Your task to perform on an android device: open app "Microsoft Outlook" Image 0: 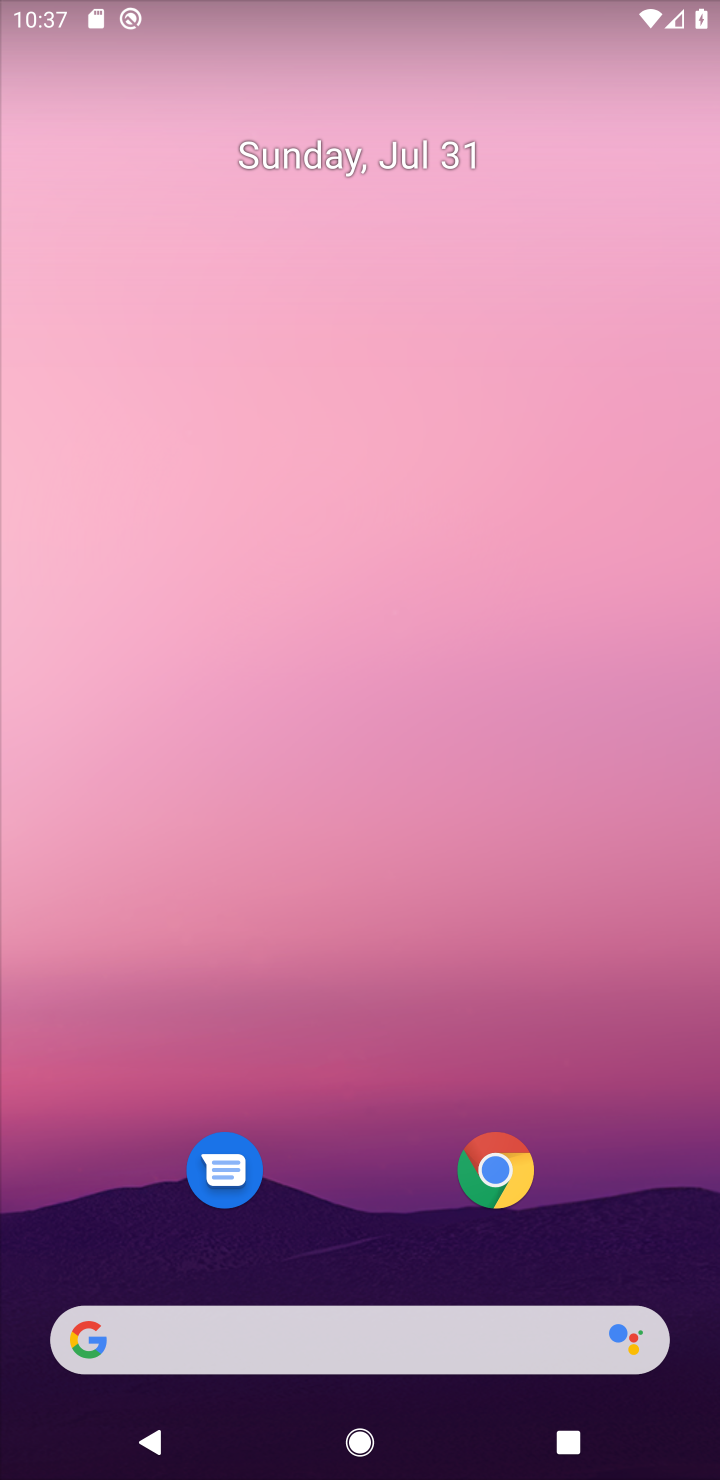
Step 0: drag from (652, 1192) to (675, 178)
Your task to perform on an android device: open app "Microsoft Outlook" Image 1: 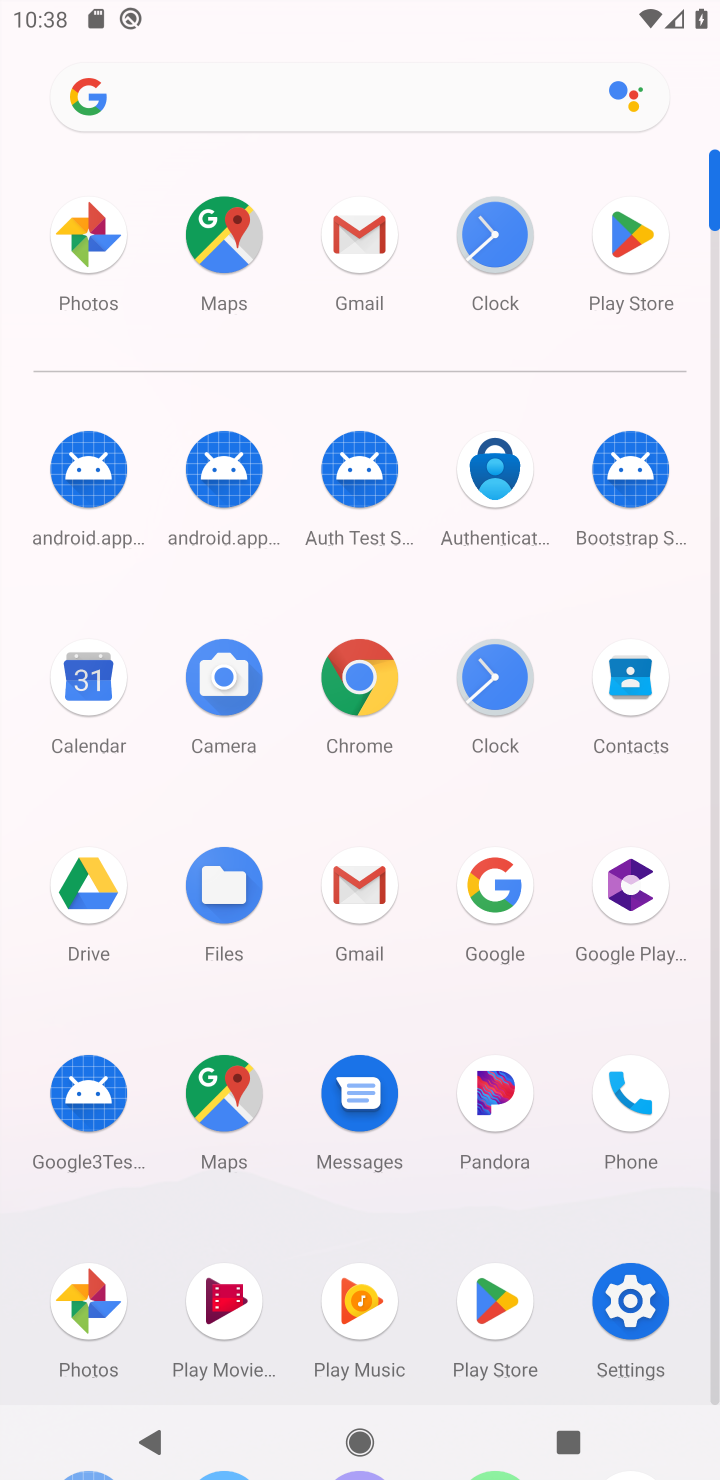
Step 1: click (639, 244)
Your task to perform on an android device: open app "Microsoft Outlook" Image 2: 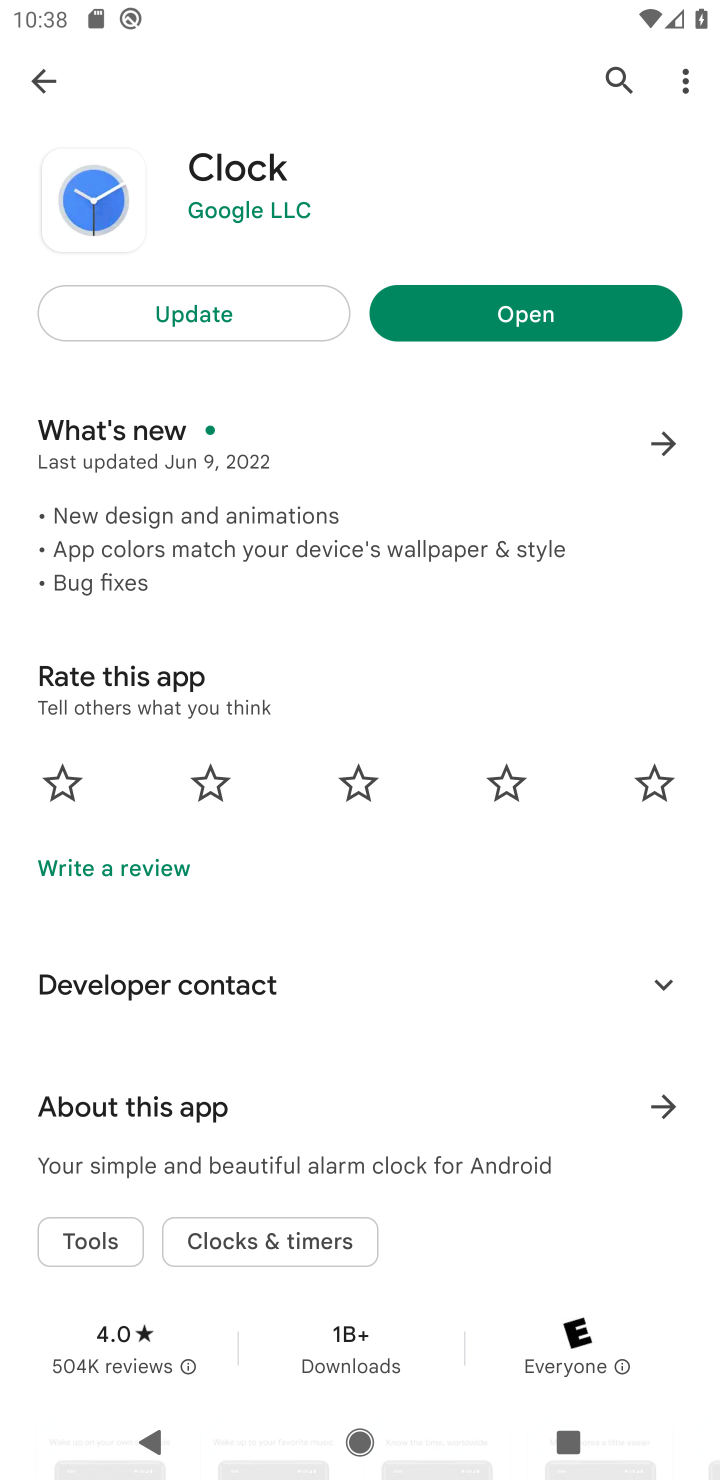
Step 2: press back button
Your task to perform on an android device: open app "Microsoft Outlook" Image 3: 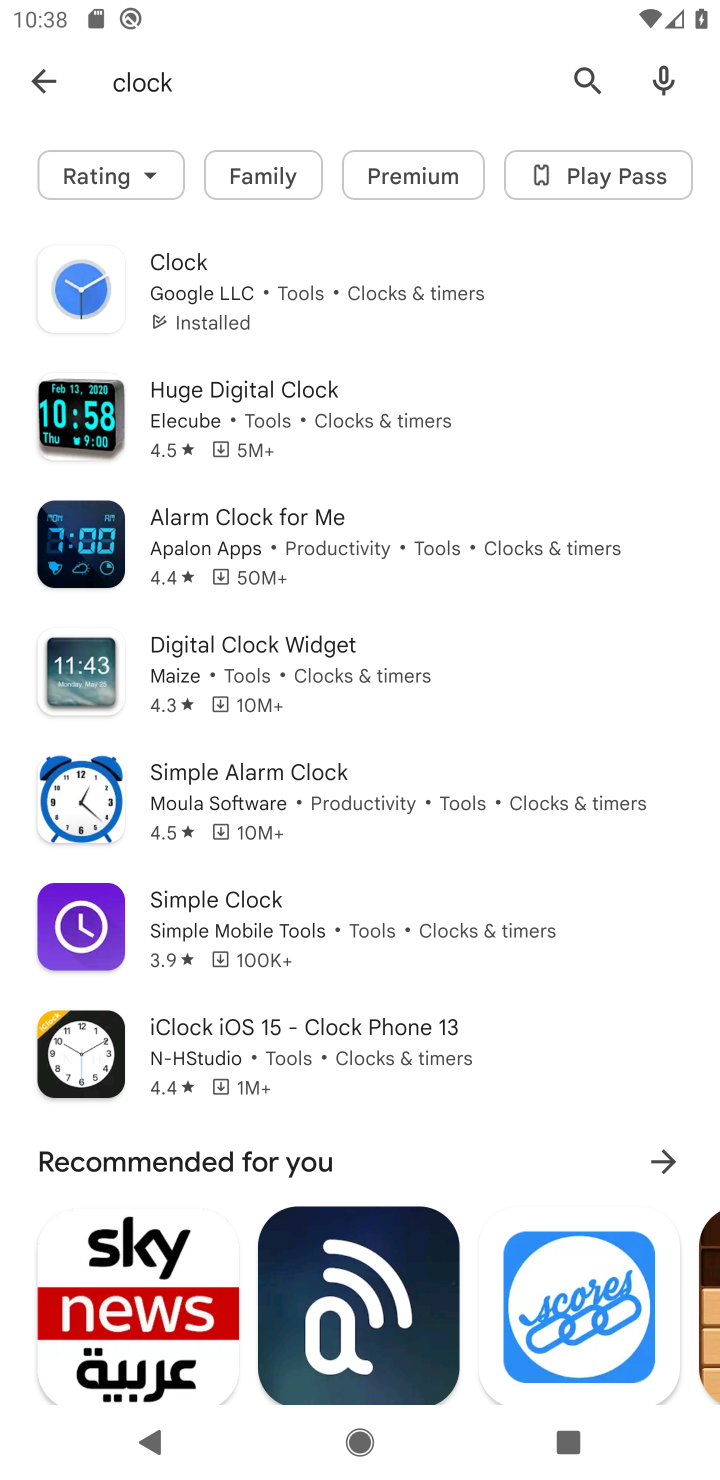
Step 3: press home button
Your task to perform on an android device: open app "Microsoft Outlook" Image 4: 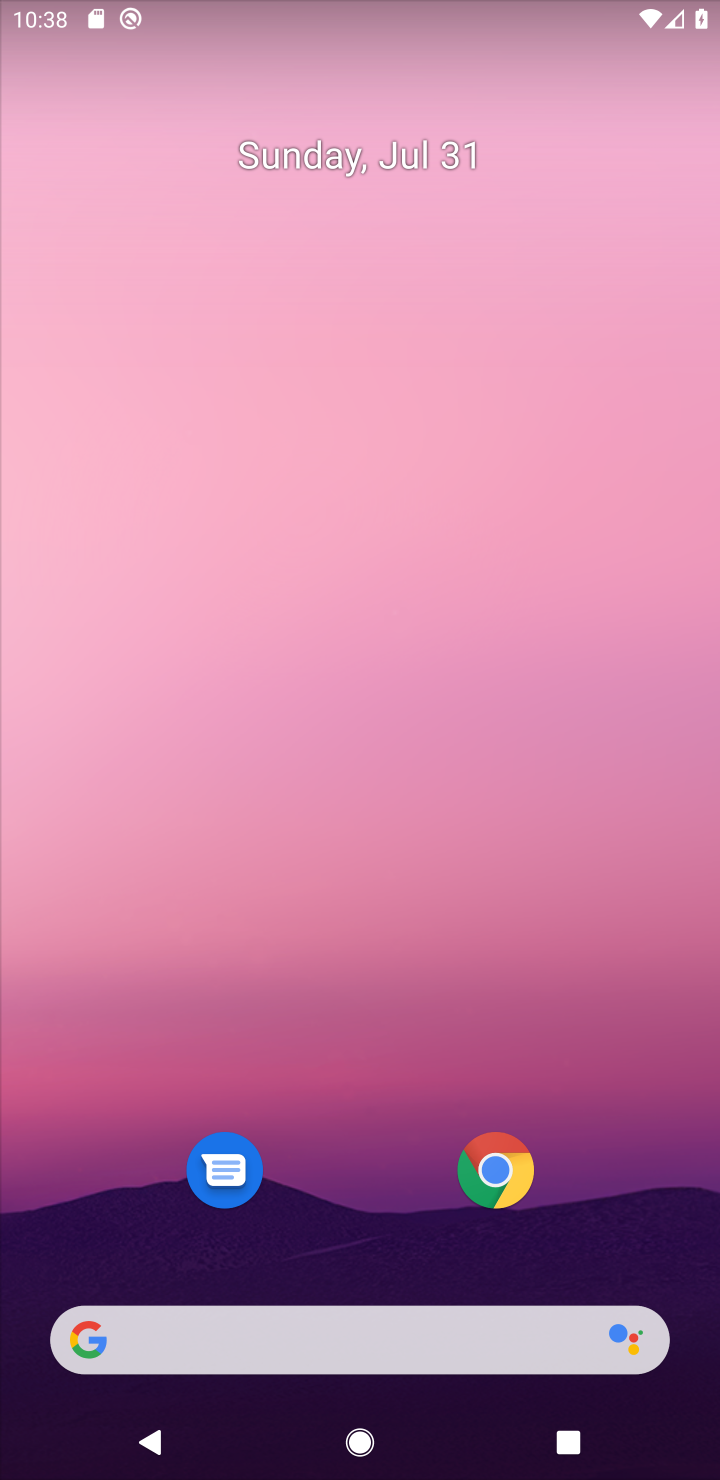
Step 4: drag from (630, 1197) to (298, 5)
Your task to perform on an android device: open app "Microsoft Outlook" Image 5: 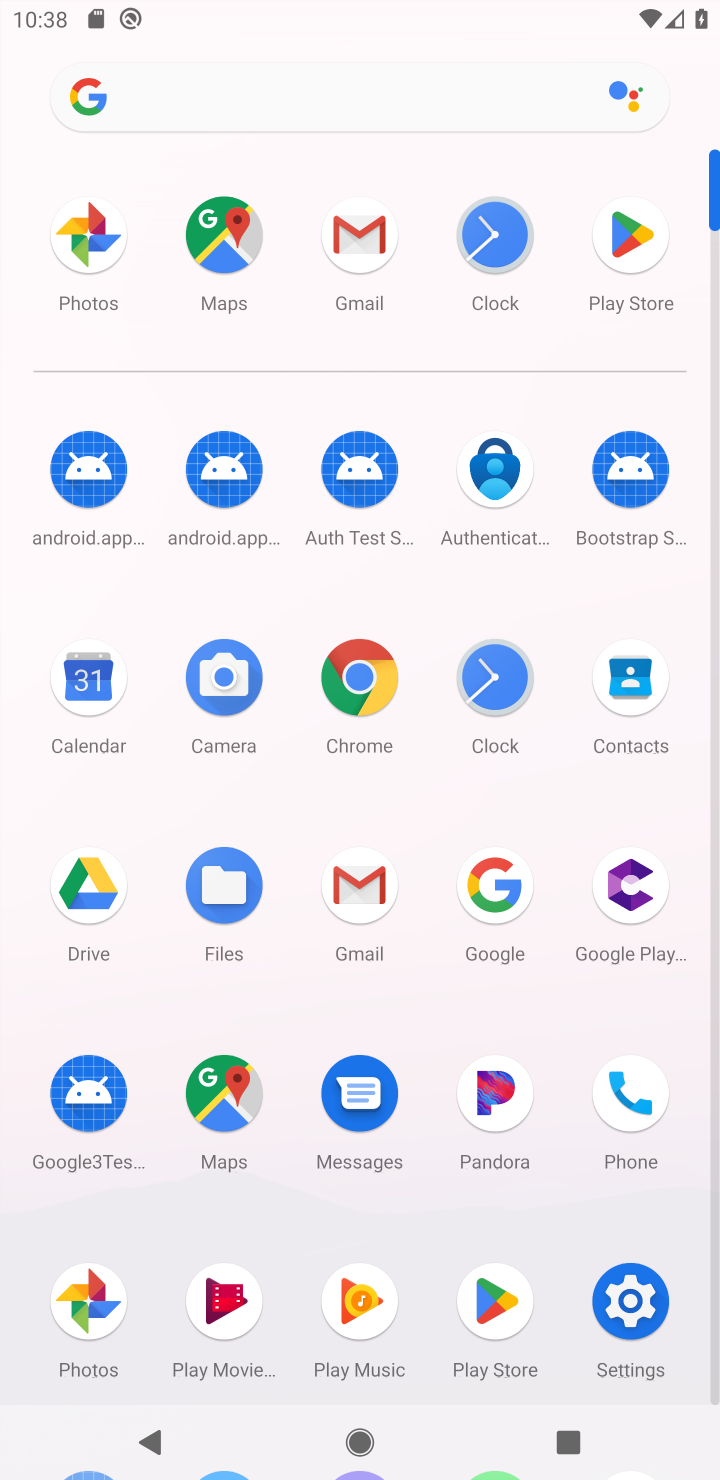
Step 5: click (631, 254)
Your task to perform on an android device: open app "Microsoft Outlook" Image 6: 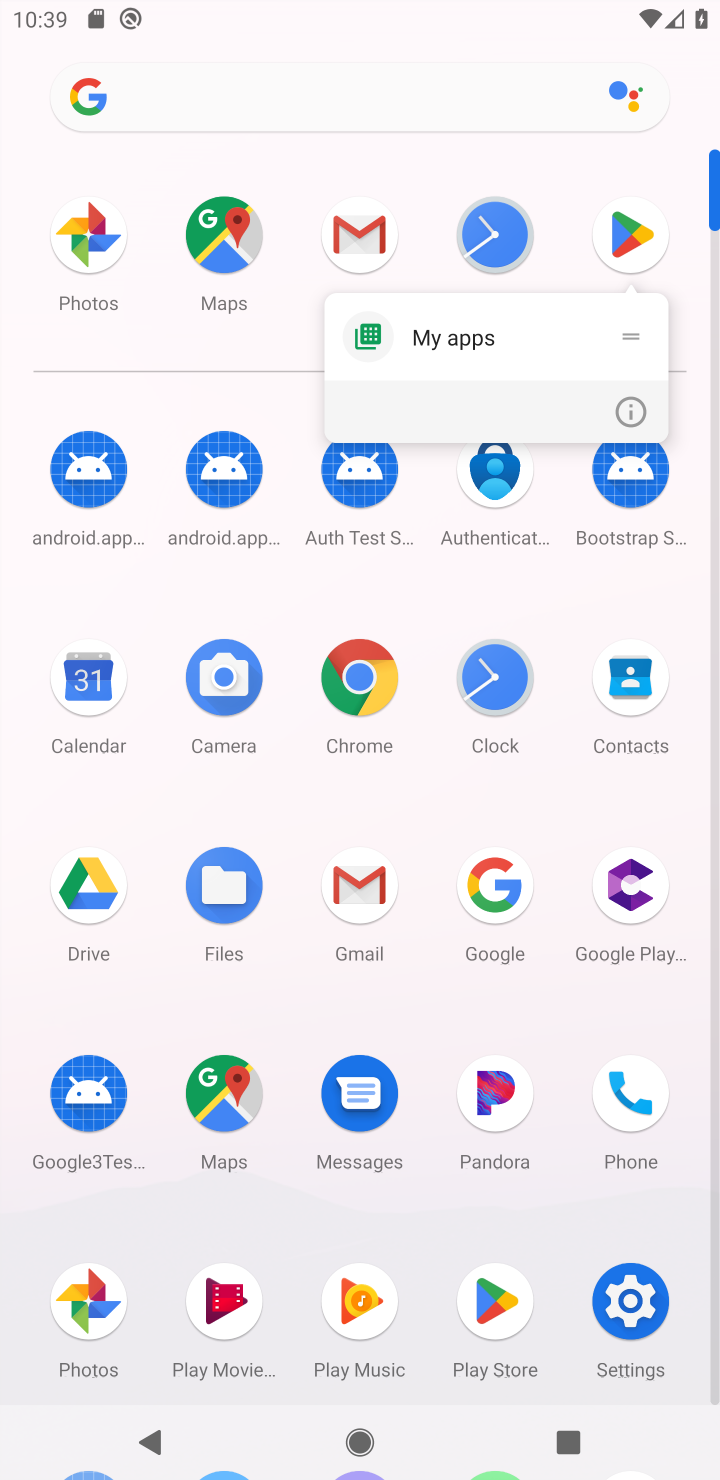
Step 6: click (612, 240)
Your task to perform on an android device: open app "Microsoft Outlook" Image 7: 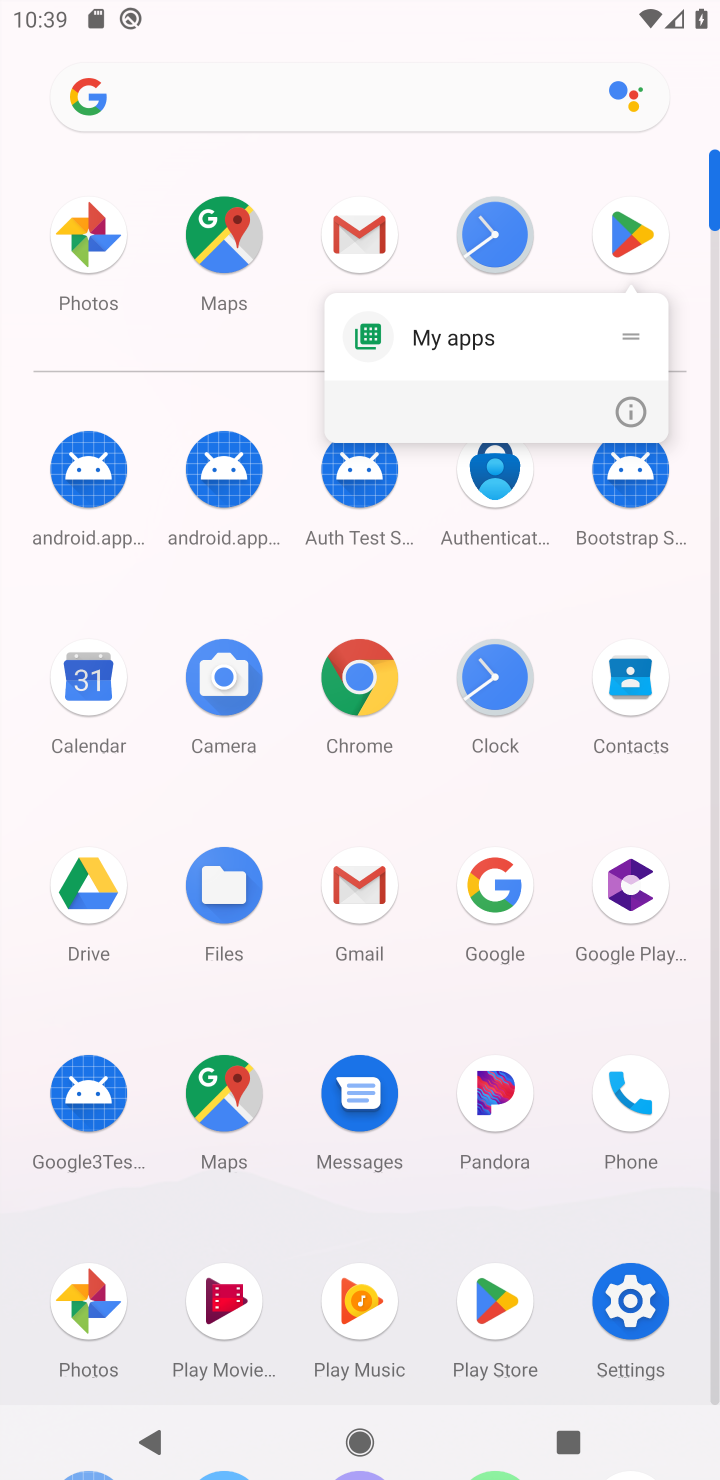
Step 7: click (644, 219)
Your task to perform on an android device: open app "Microsoft Outlook" Image 8: 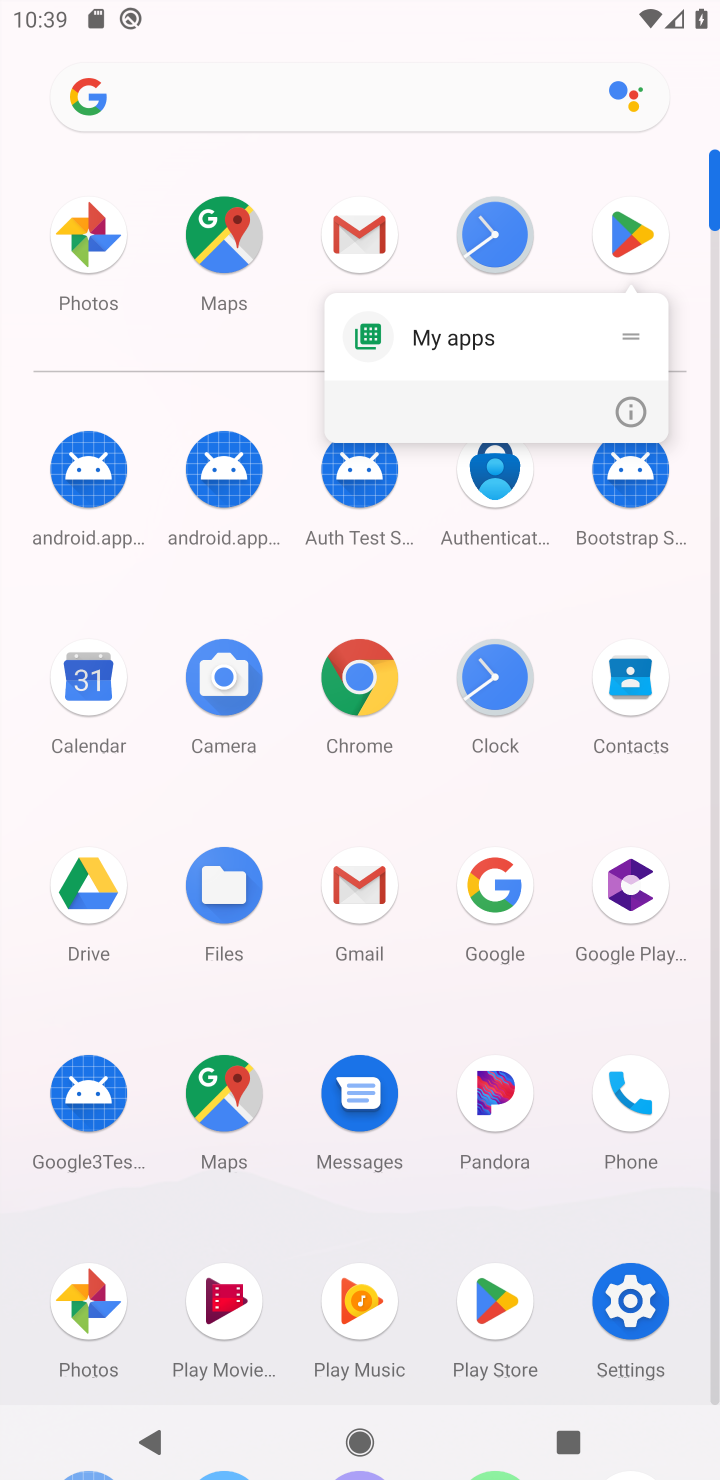
Step 8: click (644, 219)
Your task to perform on an android device: open app "Microsoft Outlook" Image 9: 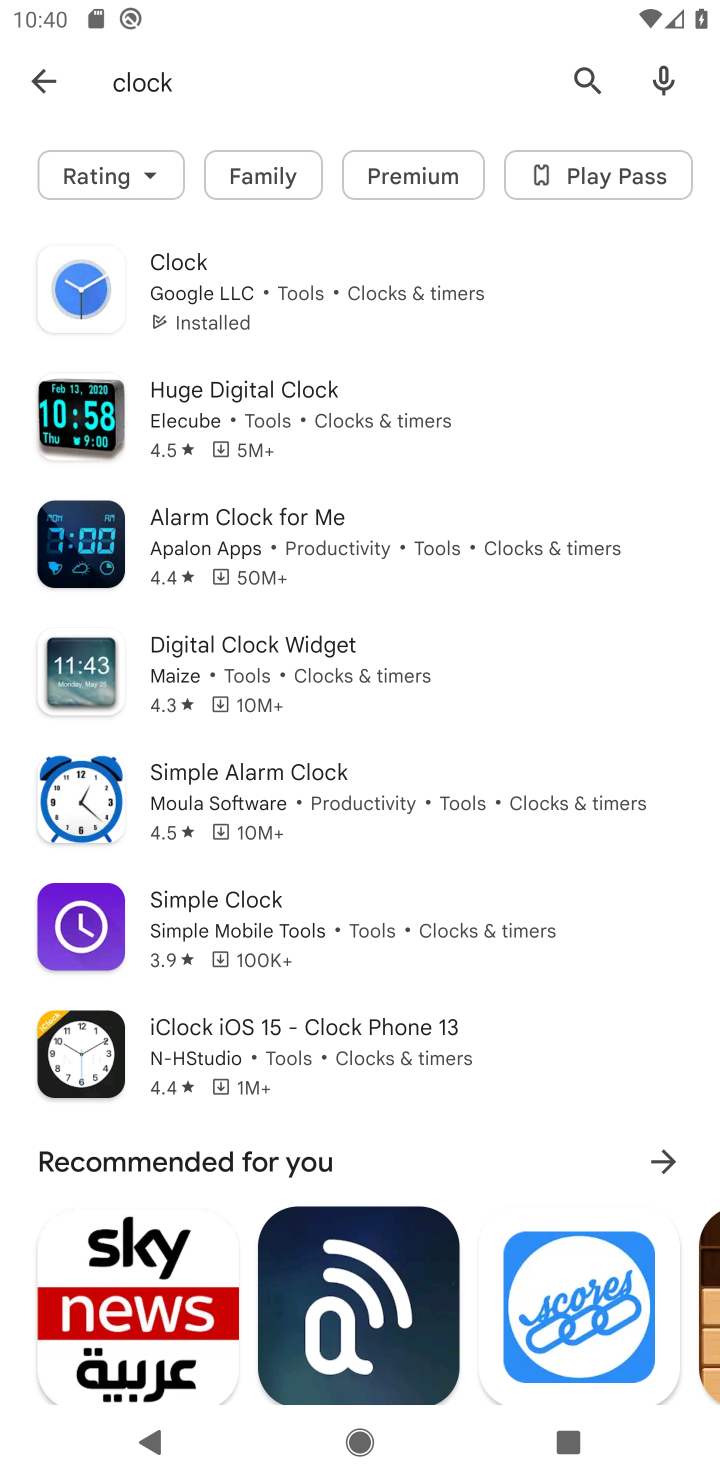
Step 9: press back button
Your task to perform on an android device: open app "Microsoft Outlook" Image 10: 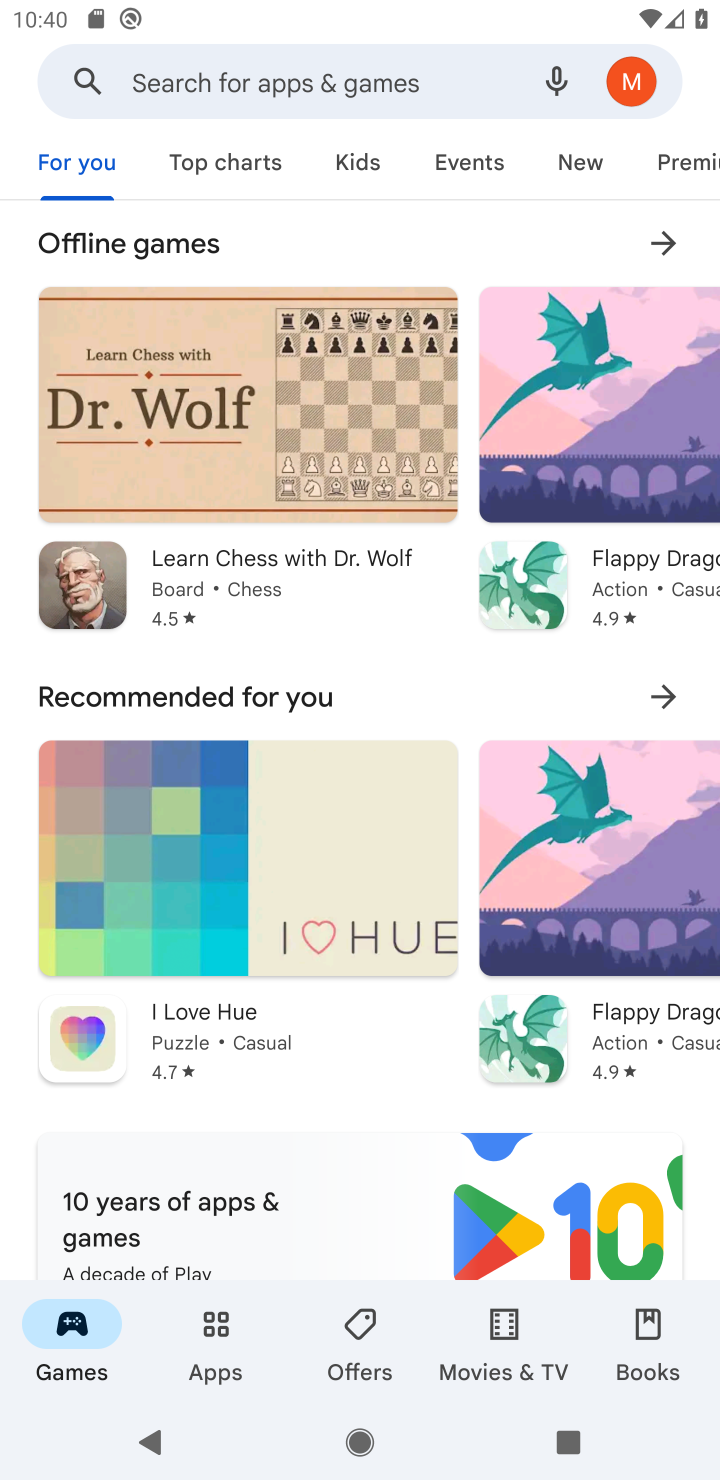
Step 10: click (183, 73)
Your task to perform on an android device: open app "Microsoft Outlook" Image 11: 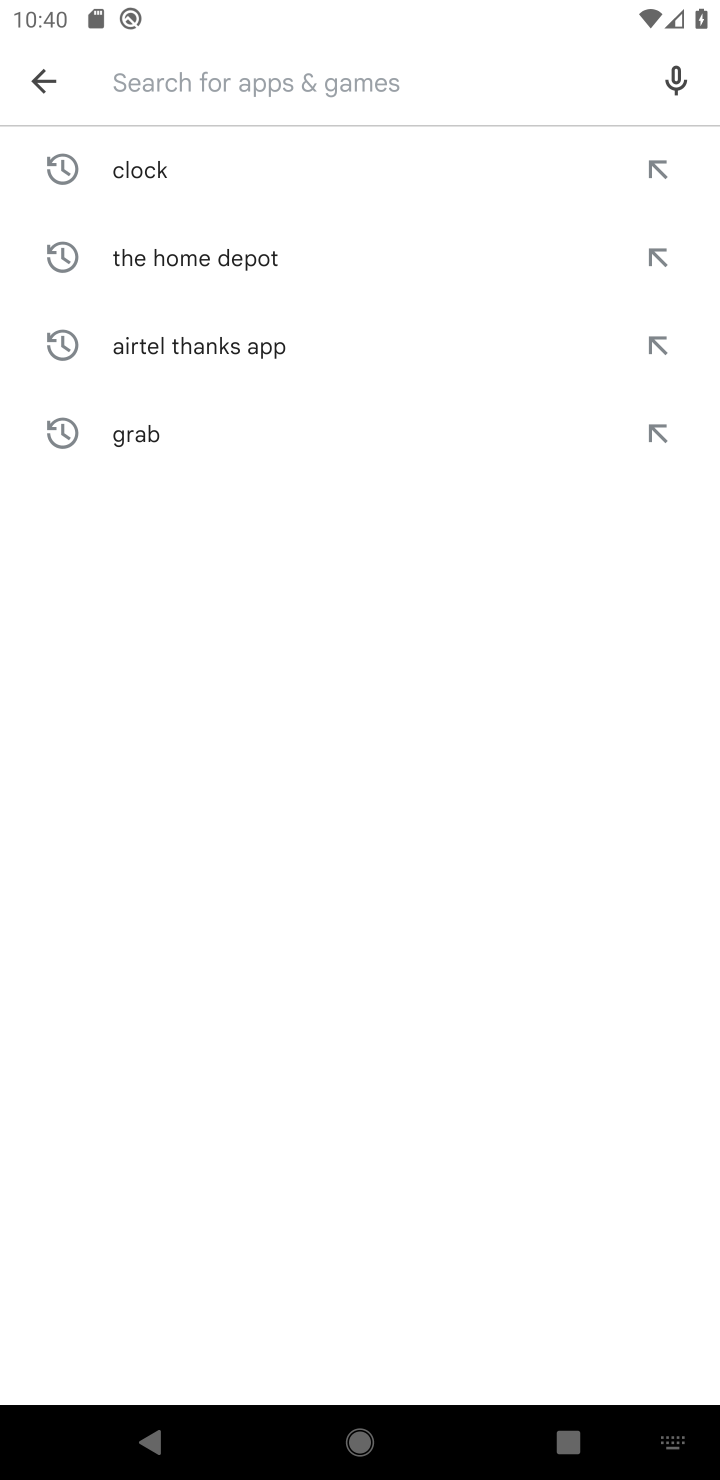
Step 11: type "Microsoft Outlook"
Your task to perform on an android device: open app "Microsoft Outlook" Image 12: 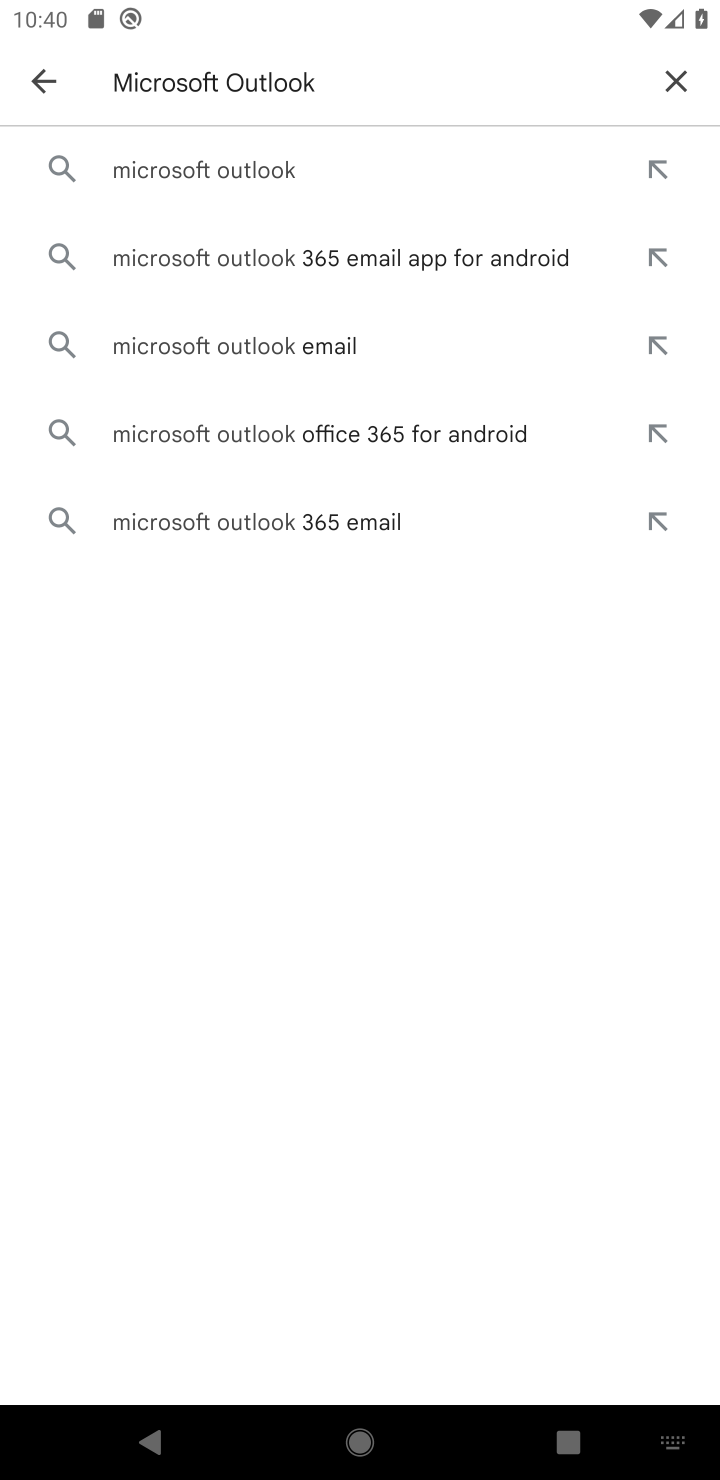
Step 12: click (231, 183)
Your task to perform on an android device: open app "Microsoft Outlook" Image 13: 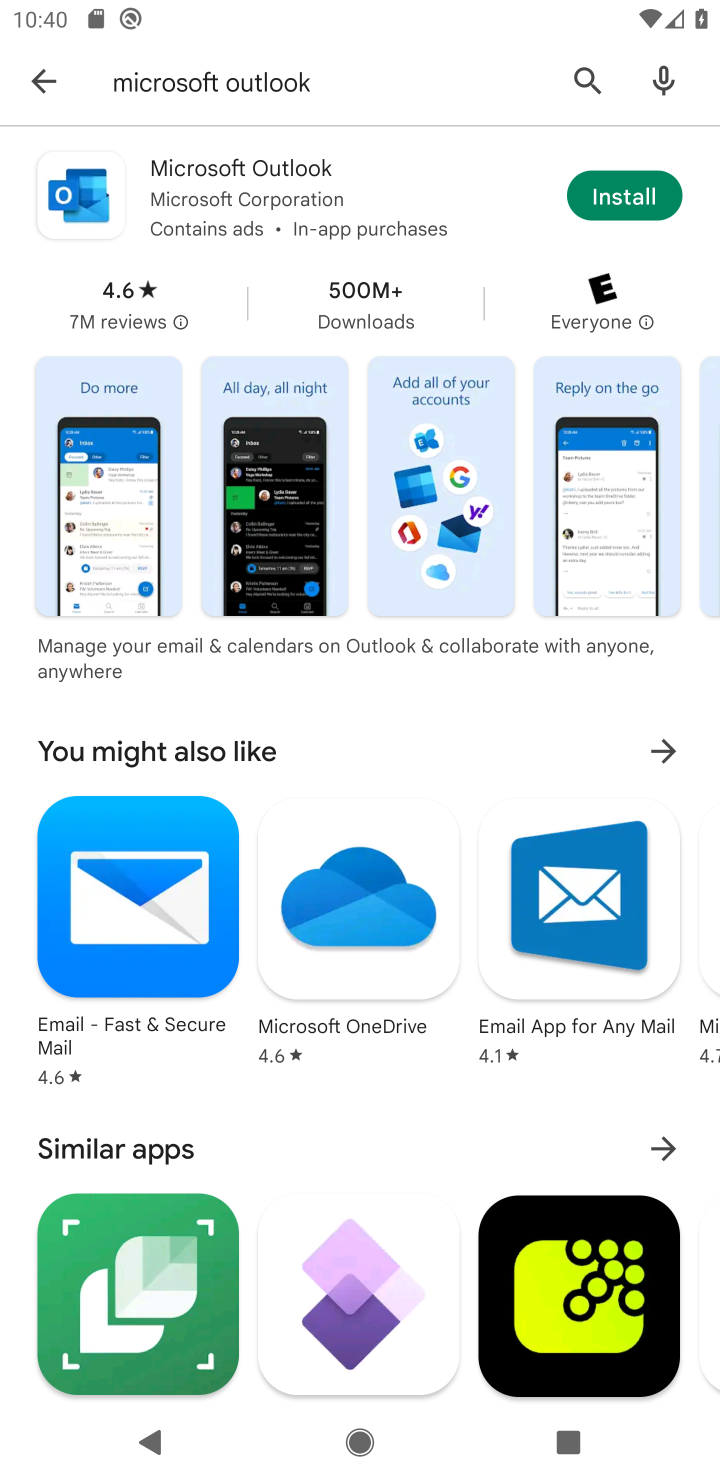
Step 13: task complete